Your task to perform on an android device: Open Chrome and go to the settings page Image 0: 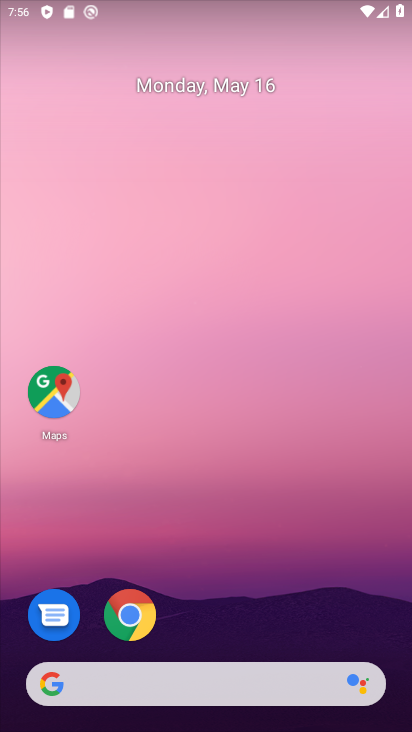
Step 0: drag from (245, 677) to (305, 79)
Your task to perform on an android device: Open Chrome and go to the settings page Image 1: 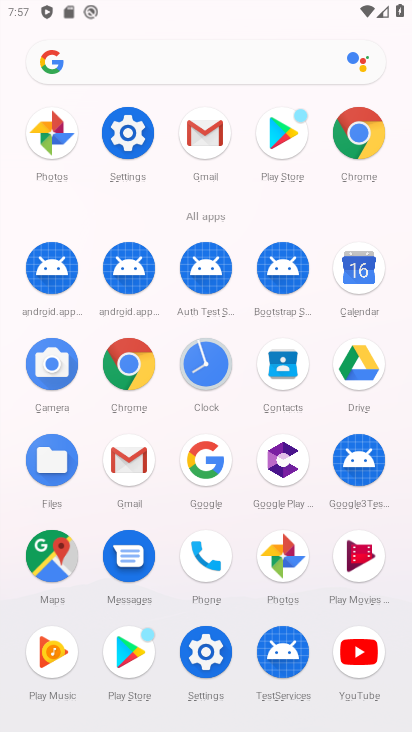
Step 1: click (375, 162)
Your task to perform on an android device: Open Chrome and go to the settings page Image 2: 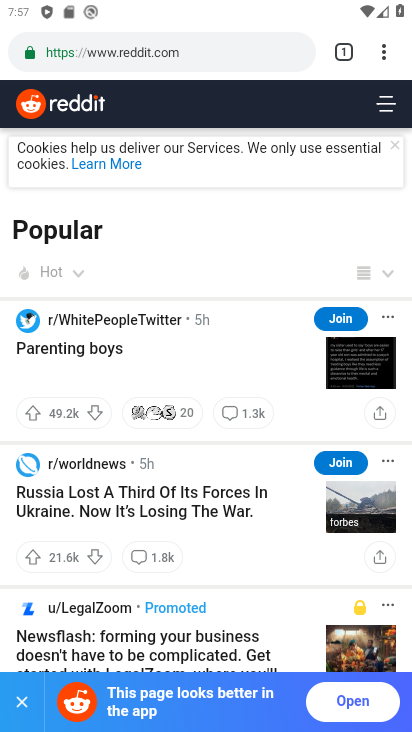
Step 2: click (391, 50)
Your task to perform on an android device: Open Chrome and go to the settings page Image 3: 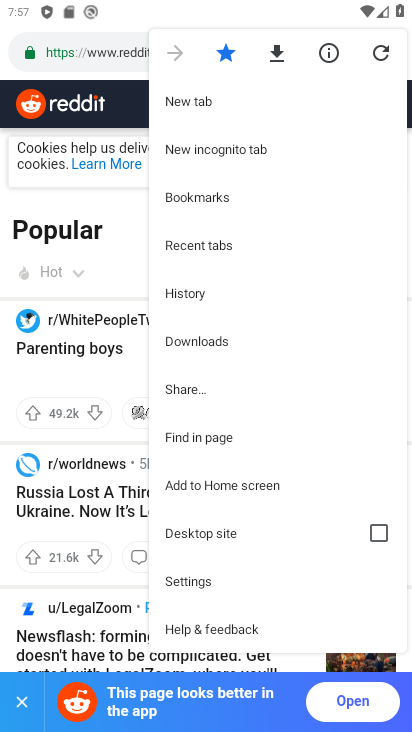
Step 3: click (196, 584)
Your task to perform on an android device: Open Chrome and go to the settings page Image 4: 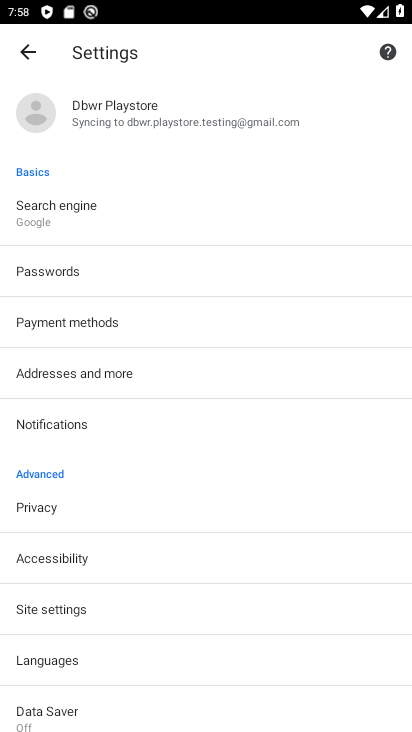
Step 4: task complete